Your task to perform on an android device: see creations saved in the google photos Image 0: 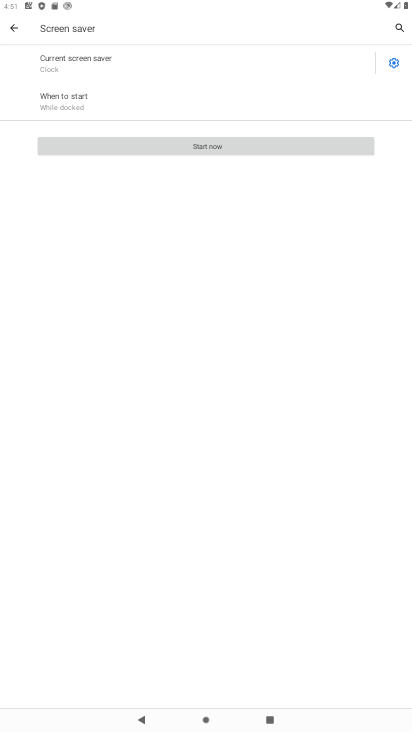
Step 0: press home button
Your task to perform on an android device: see creations saved in the google photos Image 1: 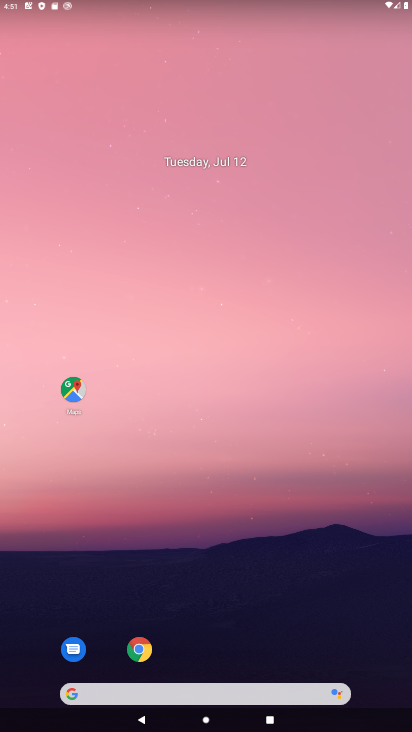
Step 1: drag from (187, 692) to (198, 196)
Your task to perform on an android device: see creations saved in the google photos Image 2: 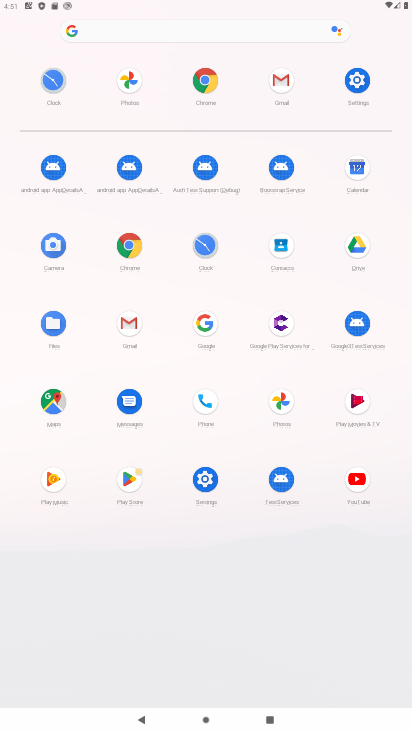
Step 2: click (281, 399)
Your task to perform on an android device: see creations saved in the google photos Image 3: 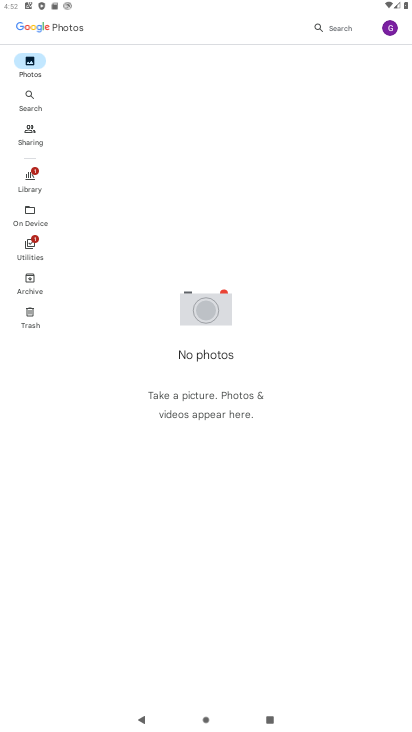
Step 3: click (35, 246)
Your task to perform on an android device: see creations saved in the google photos Image 4: 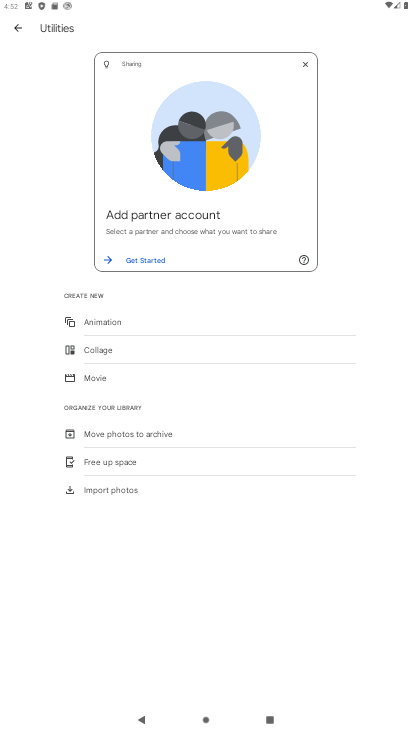
Step 4: click (86, 296)
Your task to perform on an android device: see creations saved in the google photos Image 5: 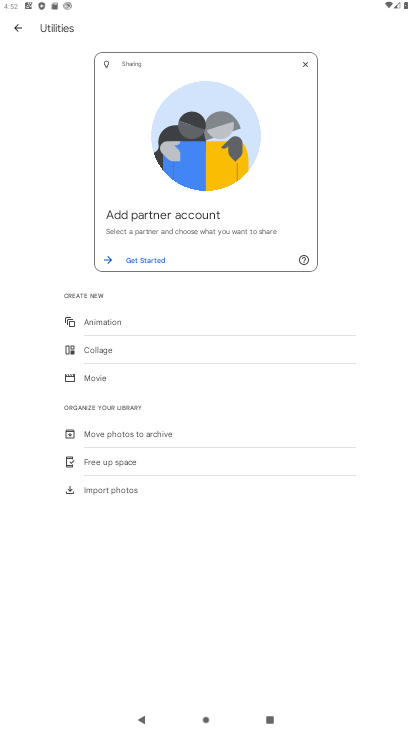
Step 5: press back button
Your task to perform on an android device: see creations saved in the google photos Image 6: 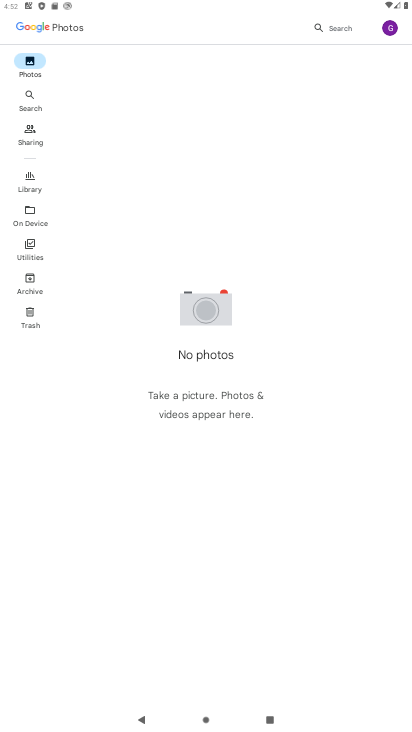
Step 6: click (34, 98)
Your task to perform on an android device: see creations saved in the google photos Image 7: 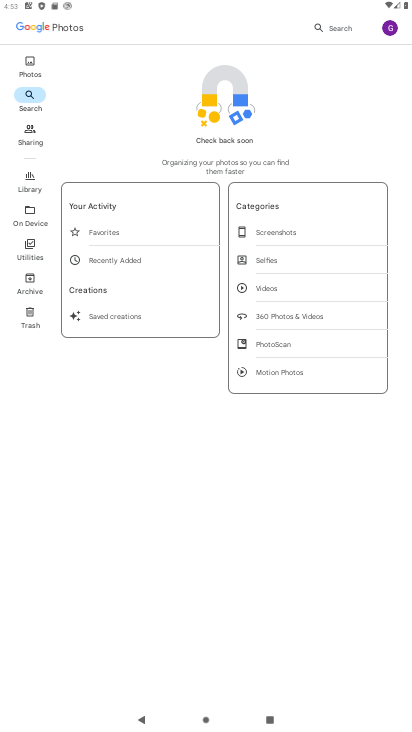
Step 7: click (126, 313)
Your task to perform on an android device: see creations saved in the google photos Image 8: 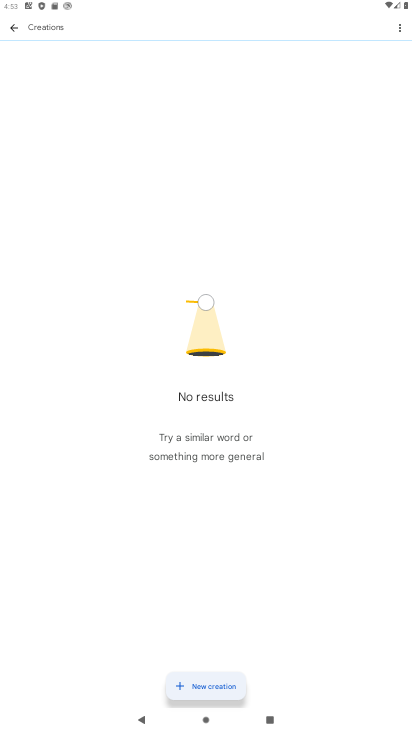
Step 8: click (235, 695)
Your task to perform on an android device: see creations saved in the google photos Image 9: 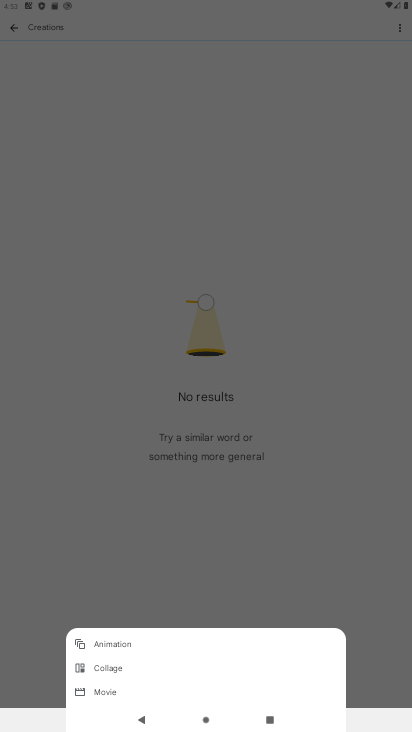
Step 9: click (132, 646)
Your task to perform on an android device: see creations saved in the google photos Image 10: 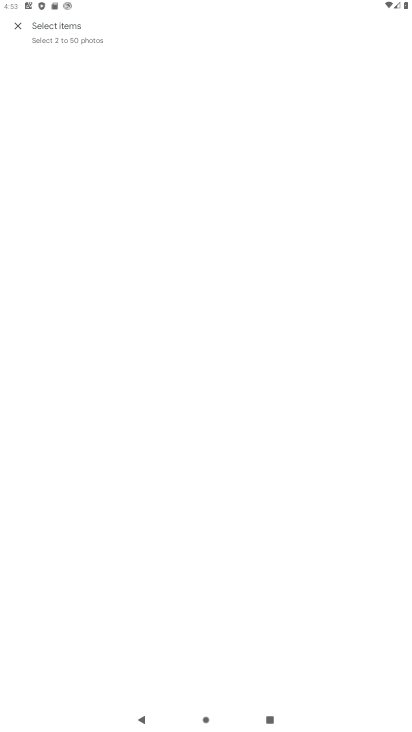
Step 10: task complete